Your task to perform on an android device: Open Chrome and go to settings Image 0: 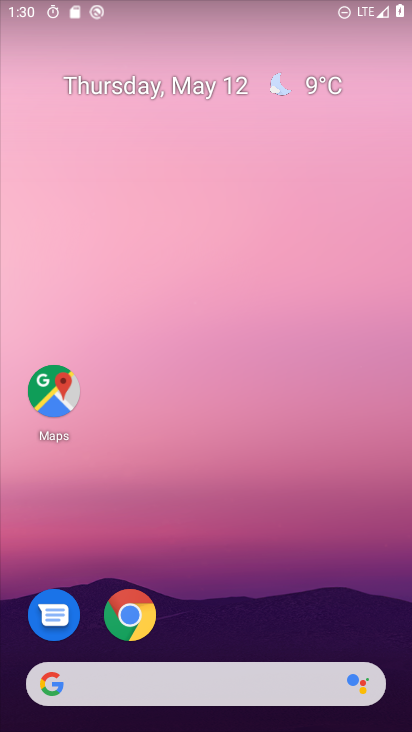
Step 0: click (128, 609)
Your task to perform on an android device: Open Chrome and go to settings Image 1: 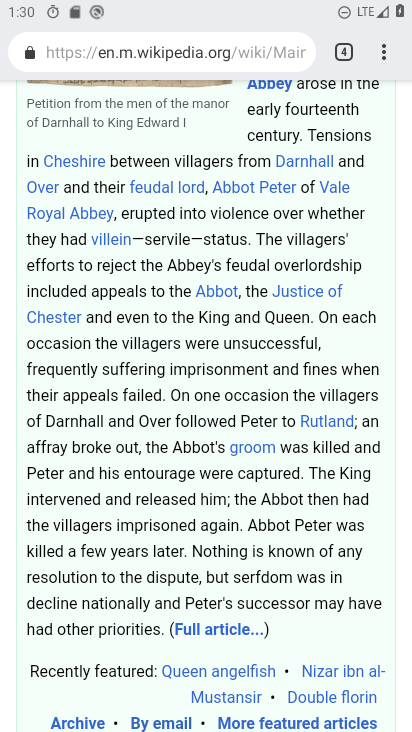
Step 1: task complete